Your task to perform on an android device: Play the last video I watched on Youtube Image 0: 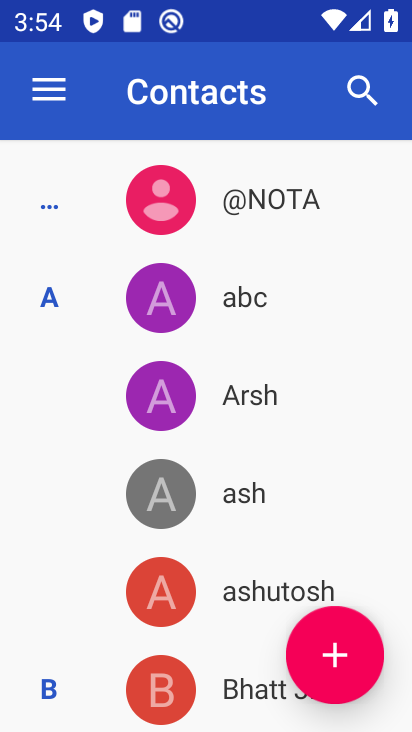
Step 0: press home button
Your task to perform on an android device: Play the last video I watched on Youtube Image 1: 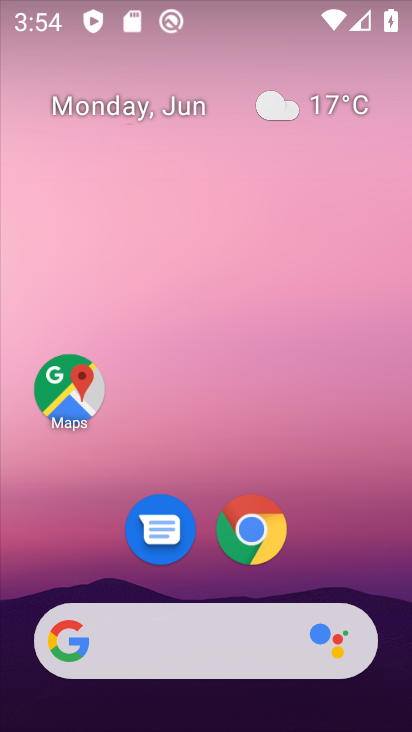
Step 1: drag from (333, 567) to (306, 22)
Your task to perform on an android device: Play the last video I watched on Youtube Image 2: 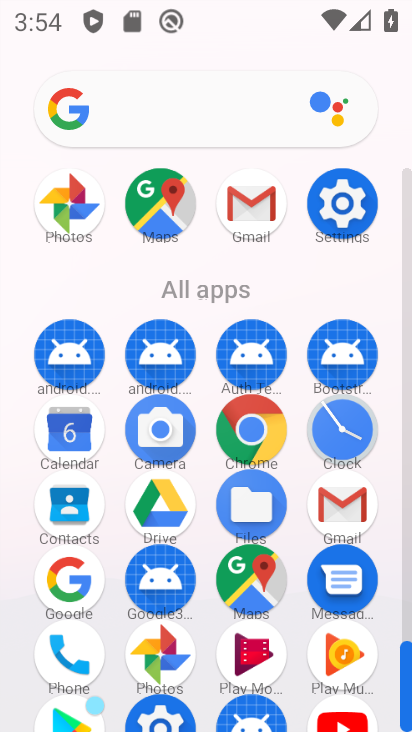
Step 2: drag from (292, 536) to (278, 79)
Your task to perform on an android device: Play the last video I watched on Youtube Image 3: 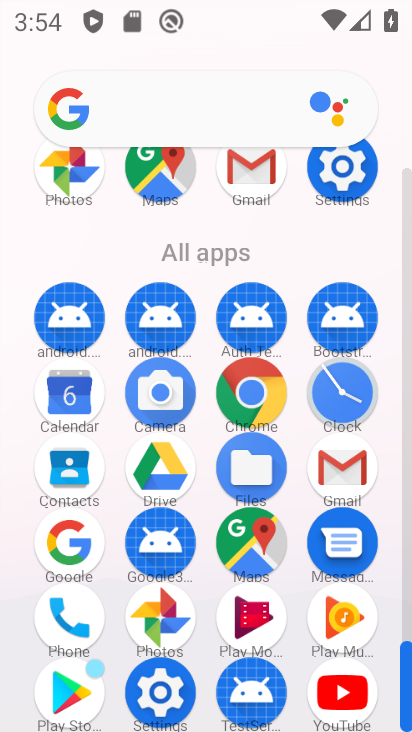
Step 3: click (350, 700)
Your task to perform on an android device: Play the last video I watched on Youtube Image 4: 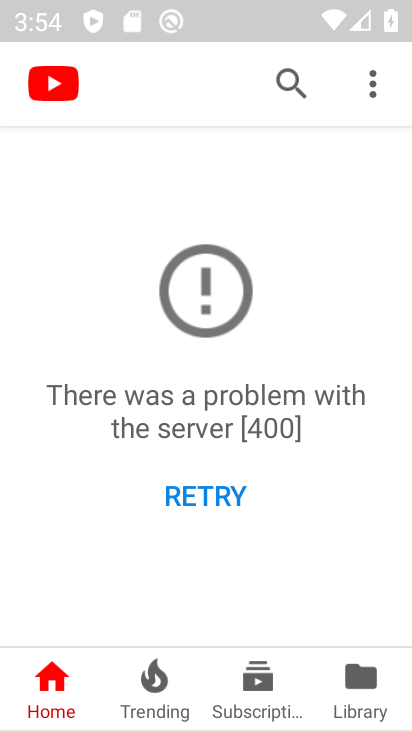
Step 4: click (206, 493)
Your task to perform on an android device: Play the last video I watched on Youtube Image 5: 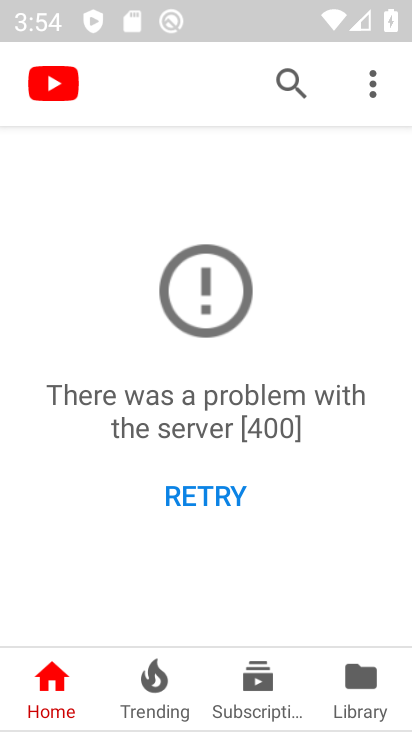
Step 5: task complete